Your task to perform on an android device: Open the calendar and show me this week's events Image 0: 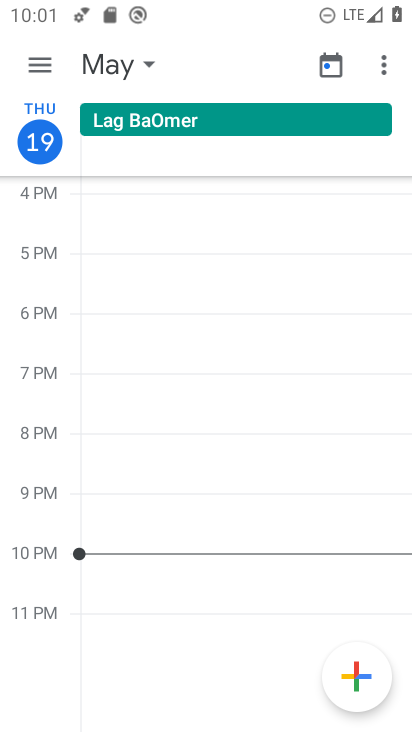
Step 0: press home button
Your task to perform on an android device: Open the calendar and show me this week's events Image 1: 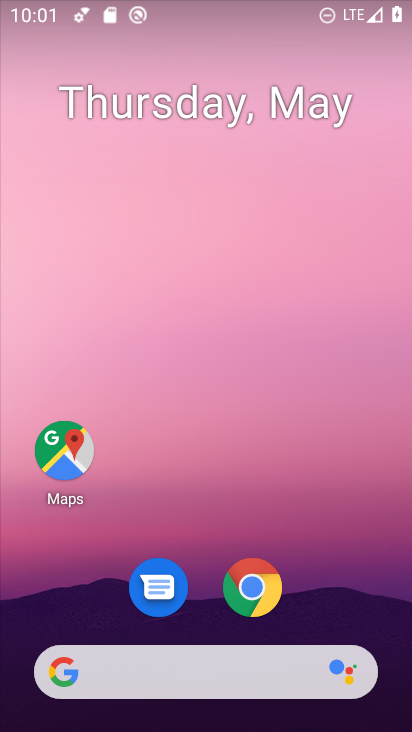
Step 1: drag from (345, 624) to (356, 5)
Your task to perform on an android device: Open the calendar and show me this week's events Image 2: 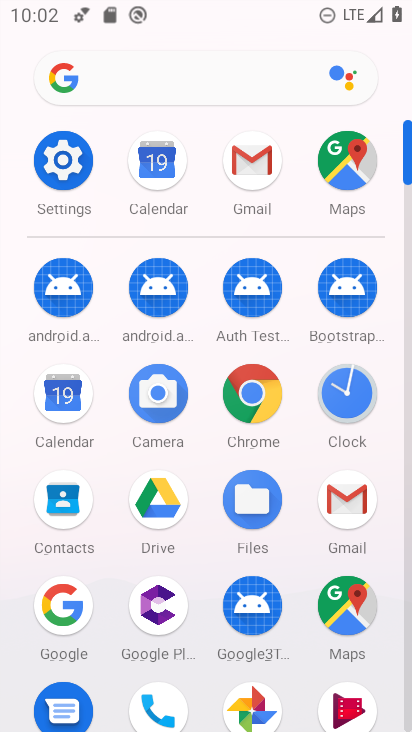
Step 2: click (149, 172)
Your task to perform on an android device: Open the calendar and show me this week's events Image 3: 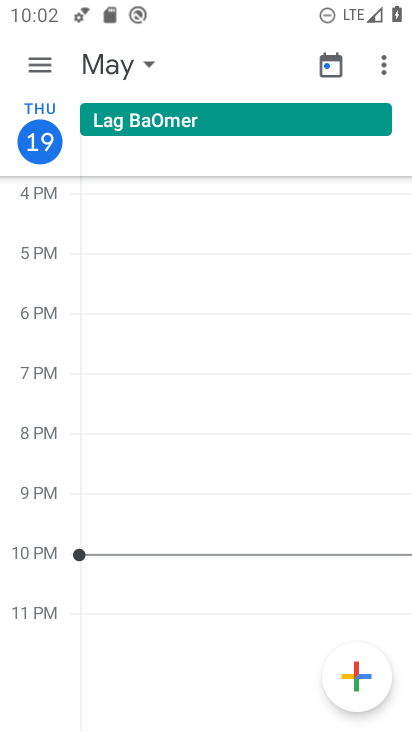
Step 3: click (41, 68)
Your task to perform on an android device: Open the calendar and show me this week's events Image 4: 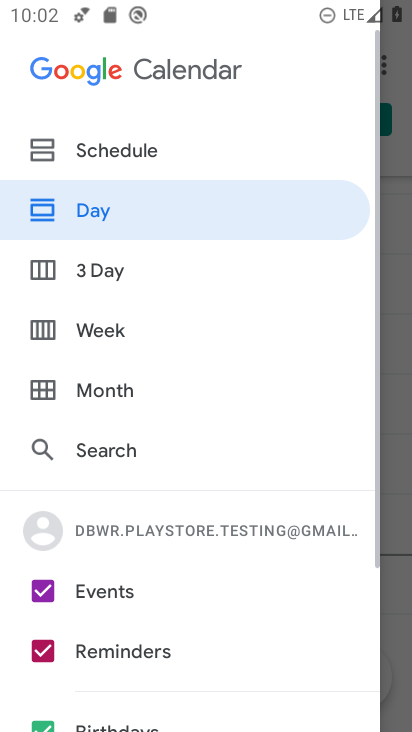
Step 4: click (77, 330)
Your task to perform on an android device: Open the calendar and show me this week's events Image 5: 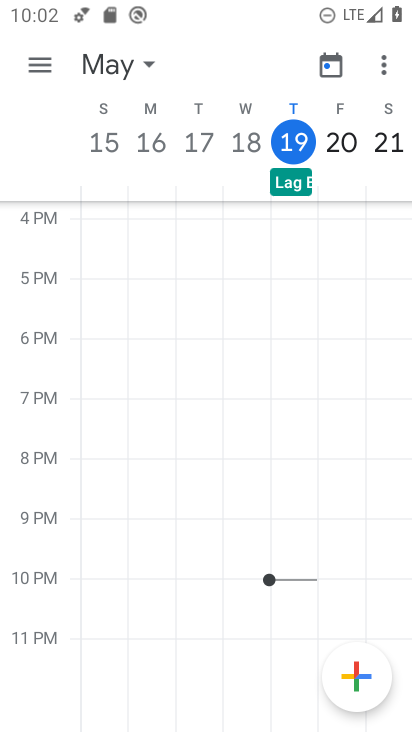
Step 5: click (28, 73)
Your task to perform on an android device: Open the calendar and show me this week's events Image 6: 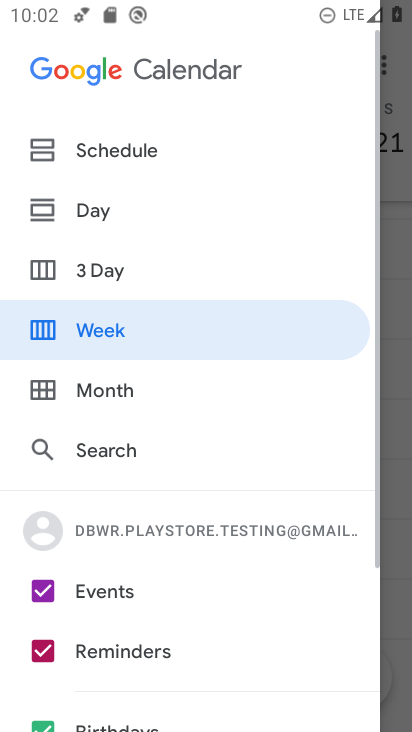
Step 6: click (43, 651)
Your task to perform on an android device: Open the calendar and show me this week's events Image 7: 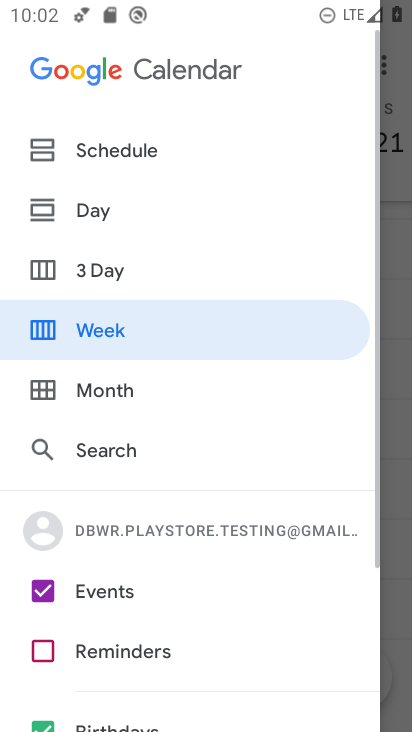
Step 7: drag from (78, 699) to (93, 388)
Your task to perform on an android device: Open the calendar and show me this week's events Image 8: 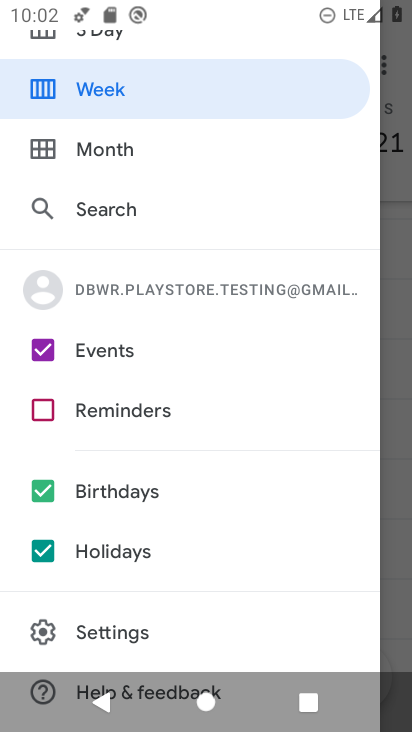
Step 8: click (42, 559)
Your task to perform on an android device: Open the calendar and show me this week's events Image 9: 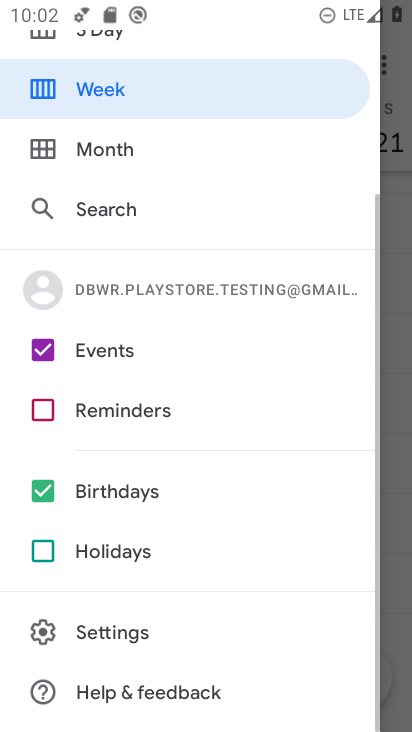
Step 9: click (42, 495)
Your task to perform on an android device: Open the calendar and show me this week's events Image 10: 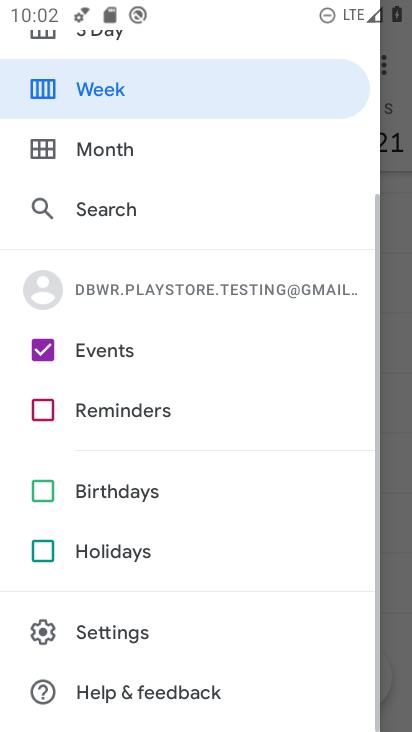
Step 10: click (83, 90)
Your task to perform on an android device: Open the calendar and show me this week's events Image 11: 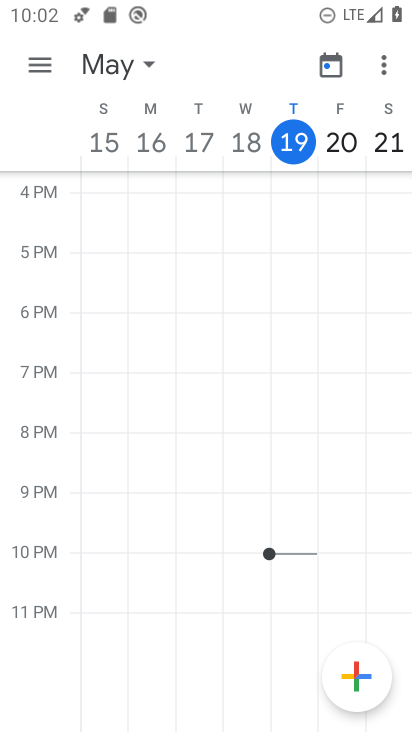
Step 11: task complete